Your task to perform on an android device: all mails in gmail Image 0: 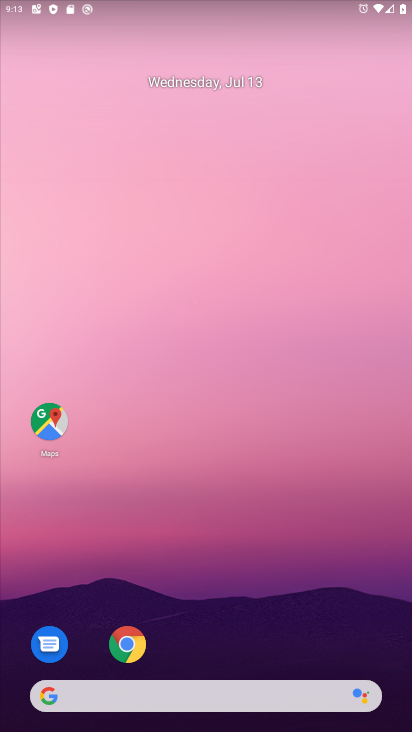
Step 0: drag from (221, 729) to (209, 145)
Your task to perform on an android device: all mails in gmail Image 1: 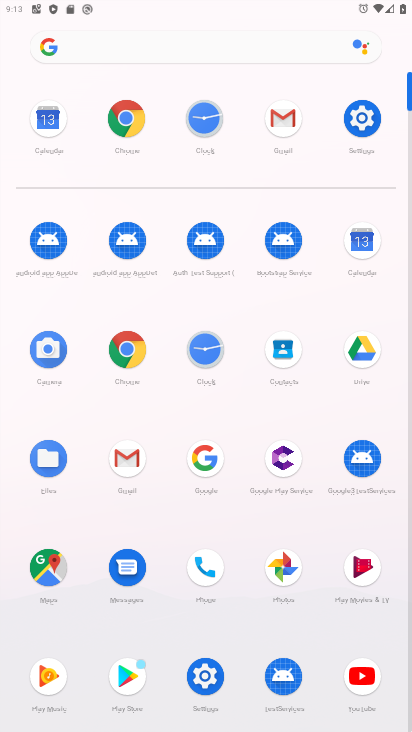
Step 1: click (127, 455)
Your task to perform on an android device: all mails in gmail Image 2: 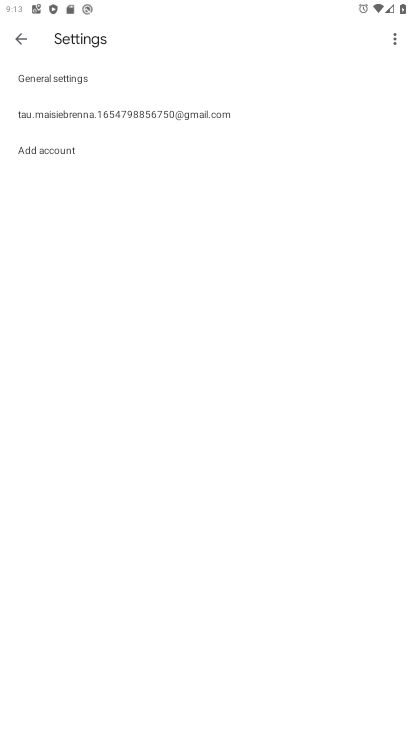
Step 2: click (25, 32)
Your task to perform on an android device: all mails in gmail Image 3: 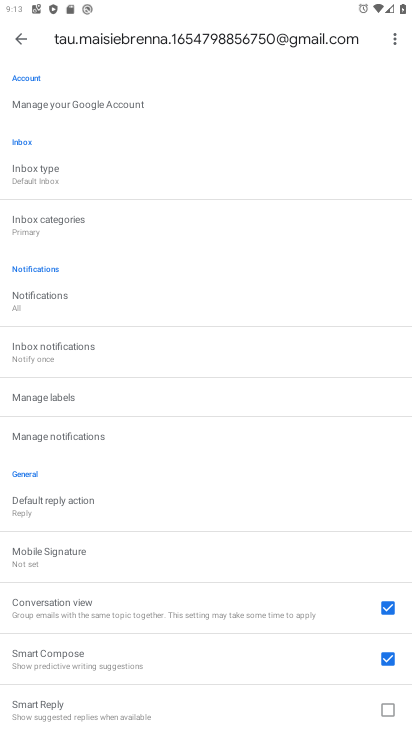
Step 3: click (24, 37)
Your task to perform on an android device: all mails in gmail Image 4: 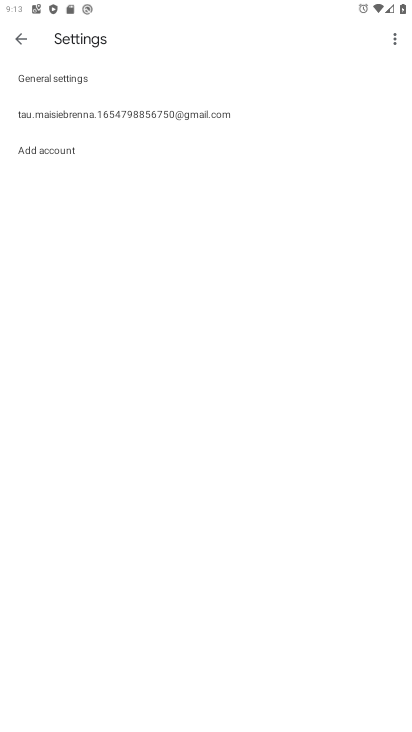
Step 4: click (21, 44)
Your task to perform on an android device: all mails in gmail Image 5: 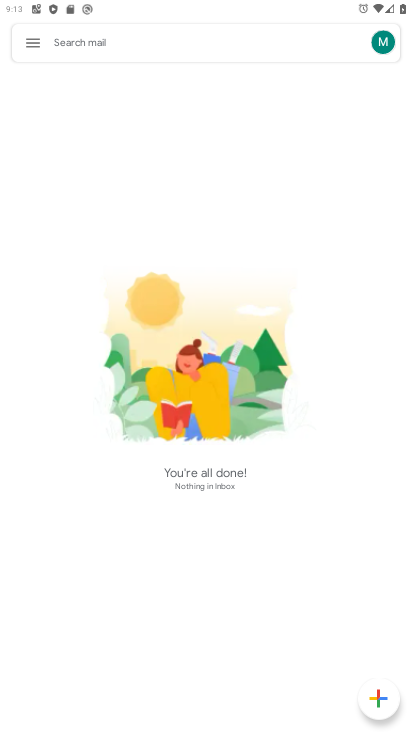
Step 5: click (30, 36)
Your task to perform on an android device: all mails in gmail Image 6: 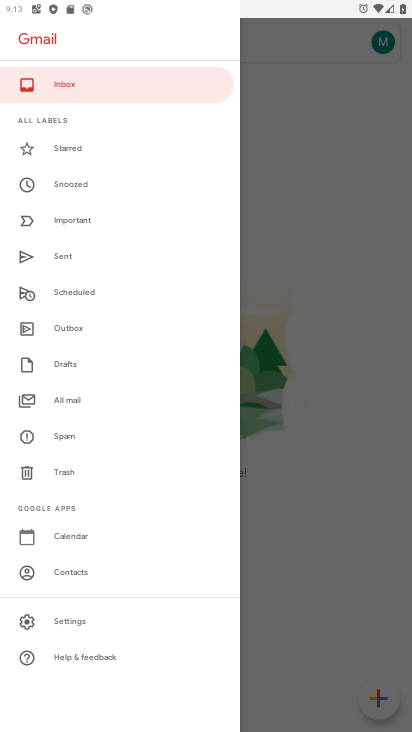
Step 6: click (72, 396)
Your task to perform on an android device: all mails in gmail Image 7: 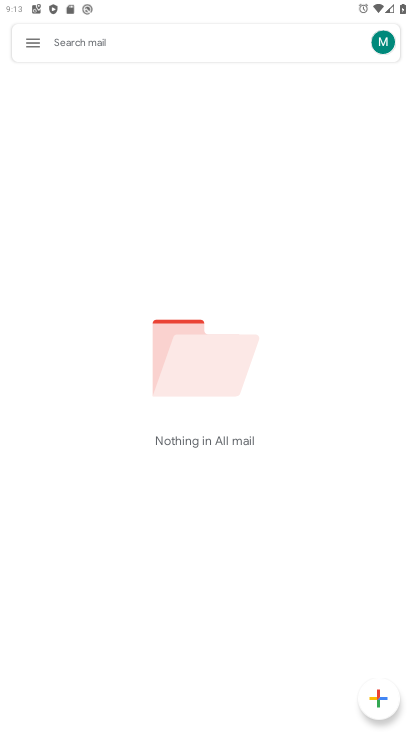
Step 7: task complete